Your task to perform on an android device: What is the price of a 12' ladder at Lowes? Image 0: 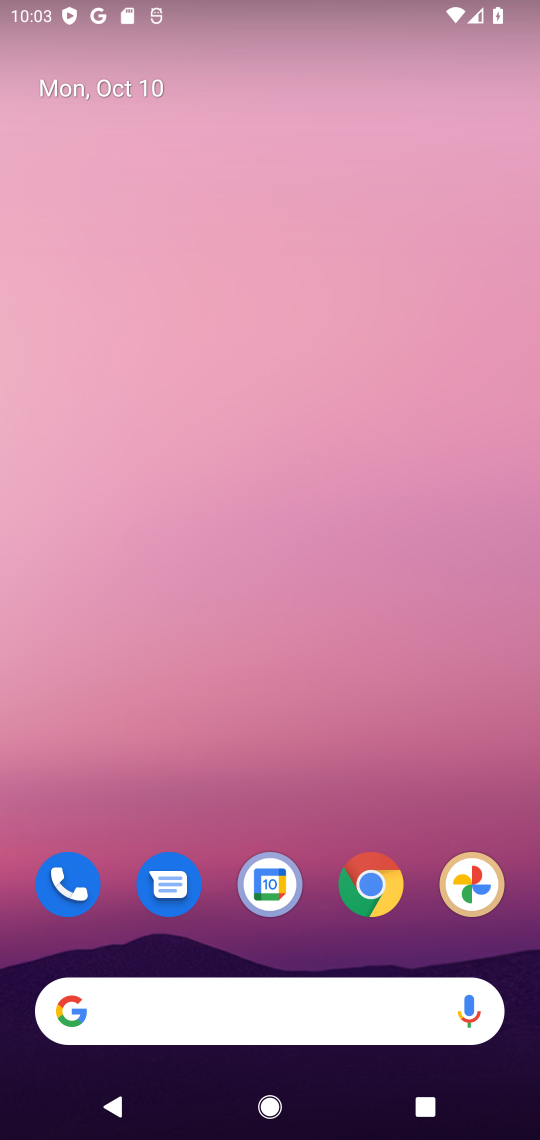
Step 0: drag from (302, 970) to (273, 59)
Your task to perform on an android device: What is the price of a 12' ladder at Lowes? Image 1: 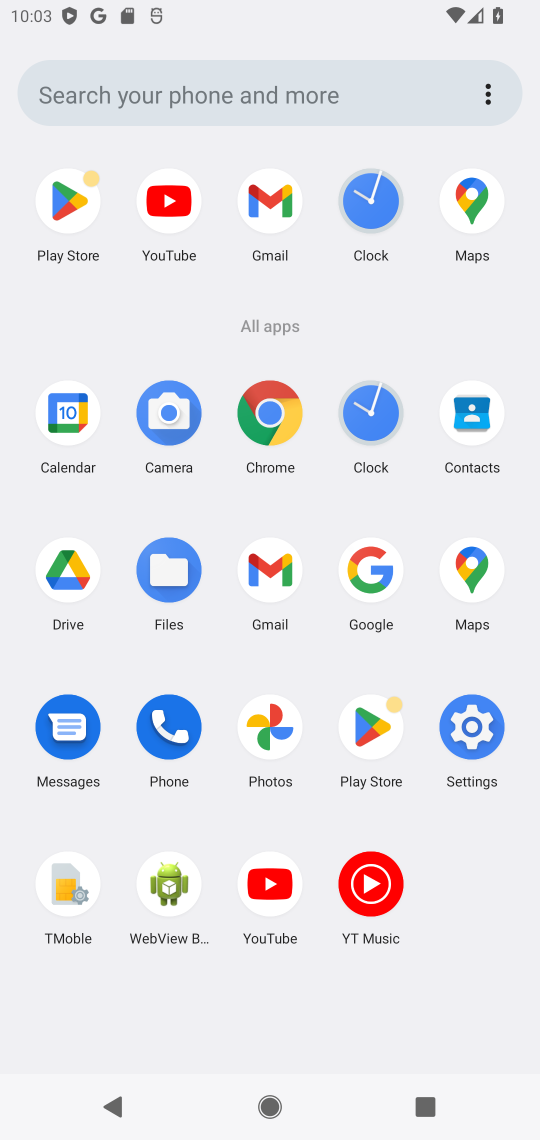
Step 1: click (376, 563)
Your task to perform on an android device: What is the price of a 12' ladder at Lowes? Image 2: 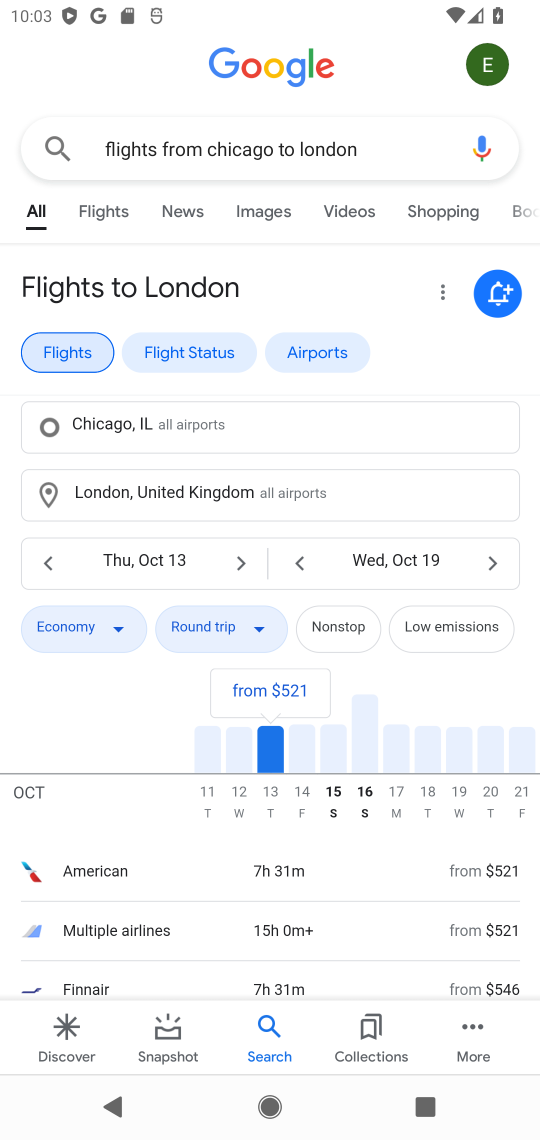
Step 2: click (386, 151)
Your task to perform on an android device: What is the price of a 12' ladder at Lowes? Image 3: 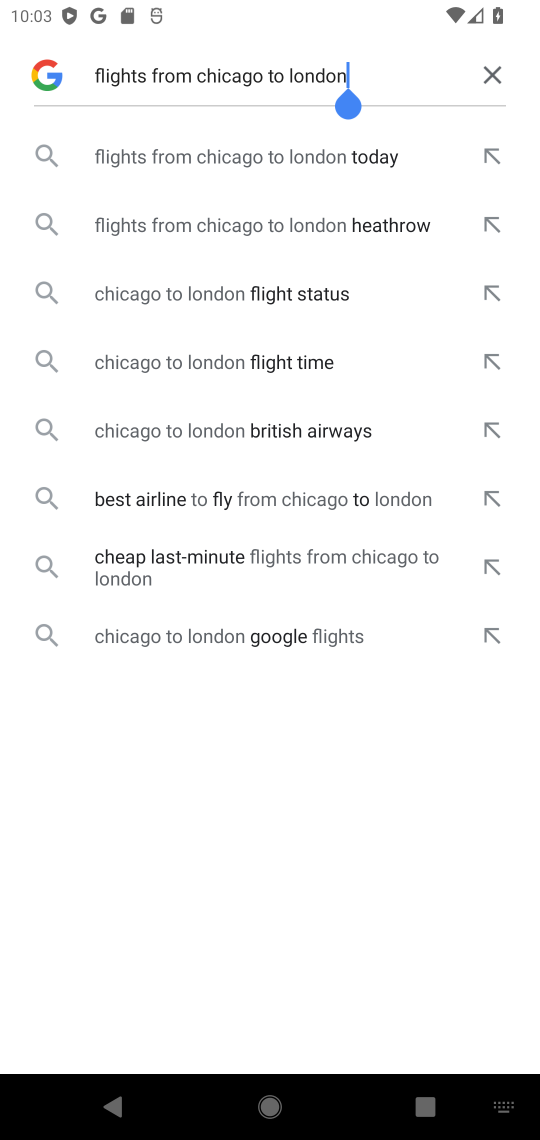
Step 3: click (488, 77)
Your task to perform on an android device: What is the price of a 12' ladder at Lowes? Image 4: 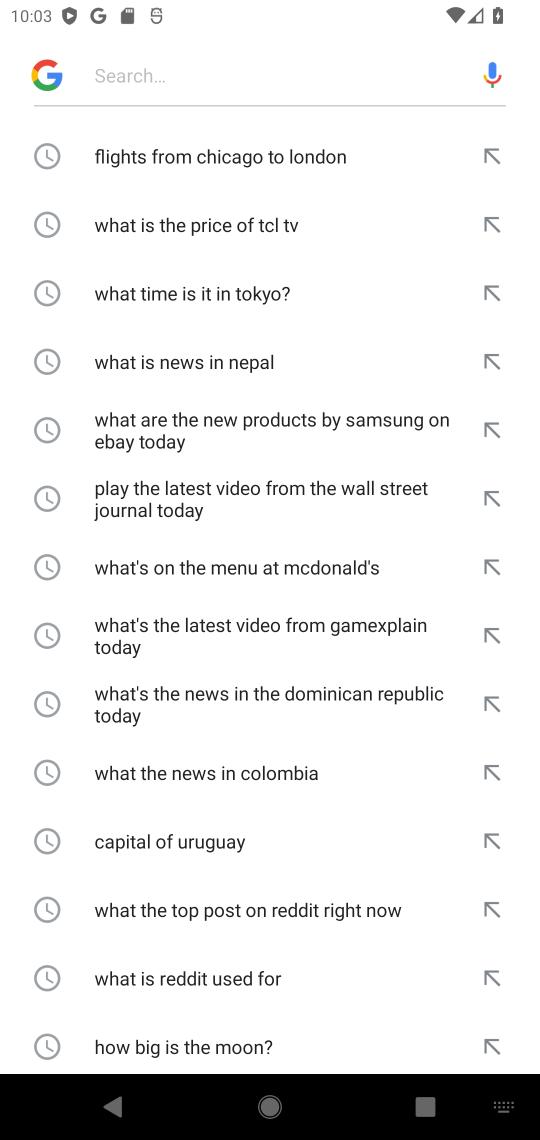
Step 4: type "What is the price of a 12' ladder at Lowes?"
Your task to perform on an android device: What is the price of a 12' ladder at Lowes? Image 5: 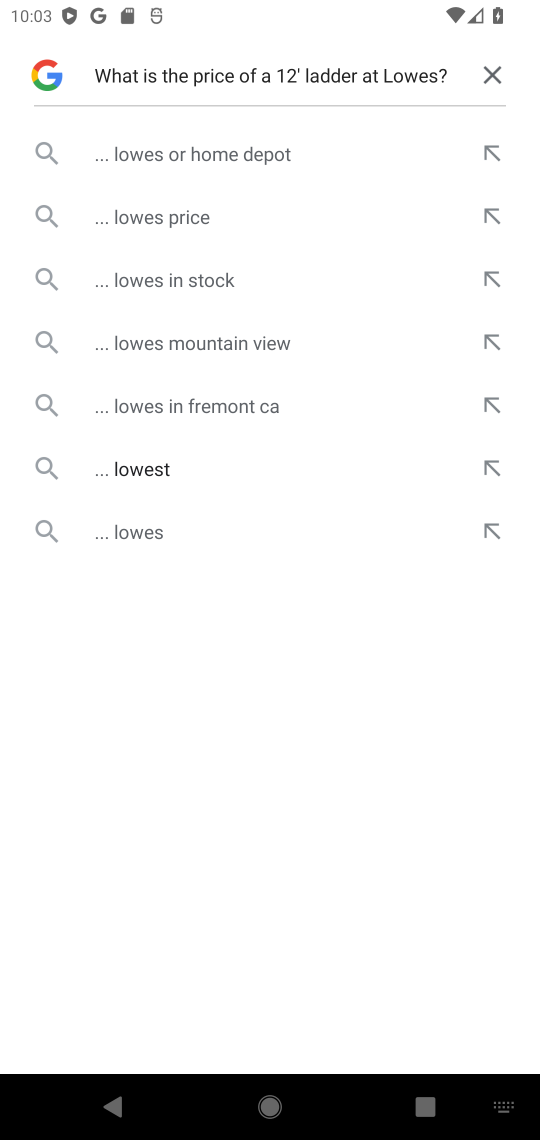
Step 5: click (134, 533)
Your task to perform on an android device: What is the price of a 12' ladder at Lowes? Image 6: 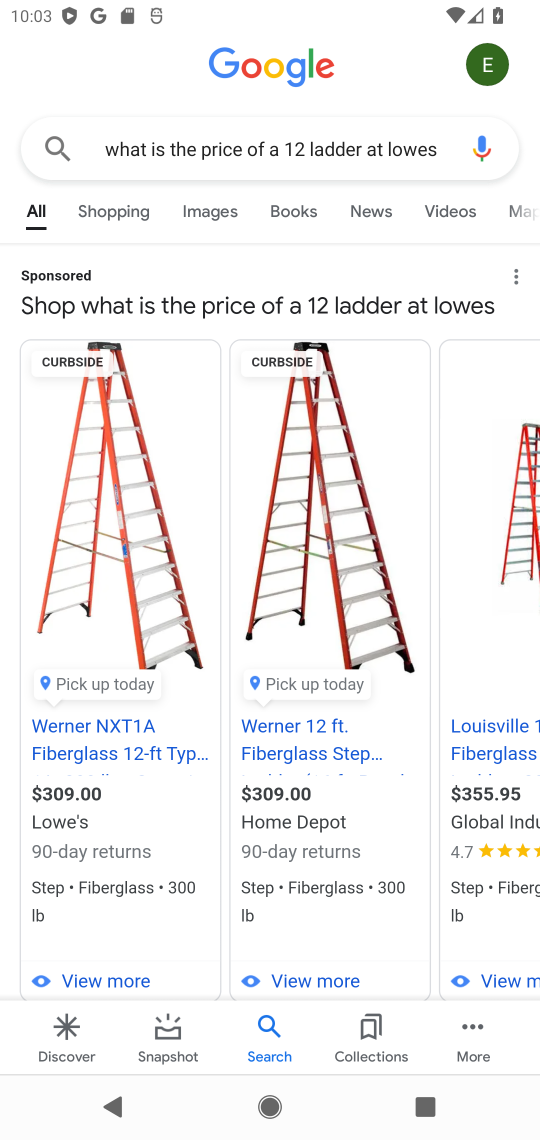
Step 6: task complete